Your task to perform on an android device: Go to display settings Image 0: 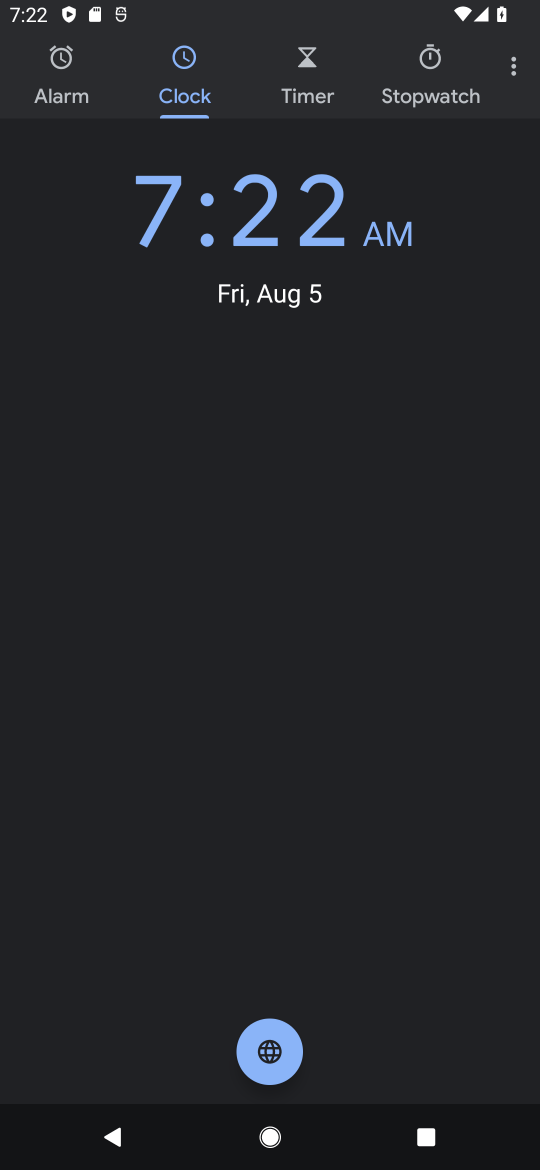
Step 0: press home button
Your task to perform on an android device: Go to display settings Image 1: 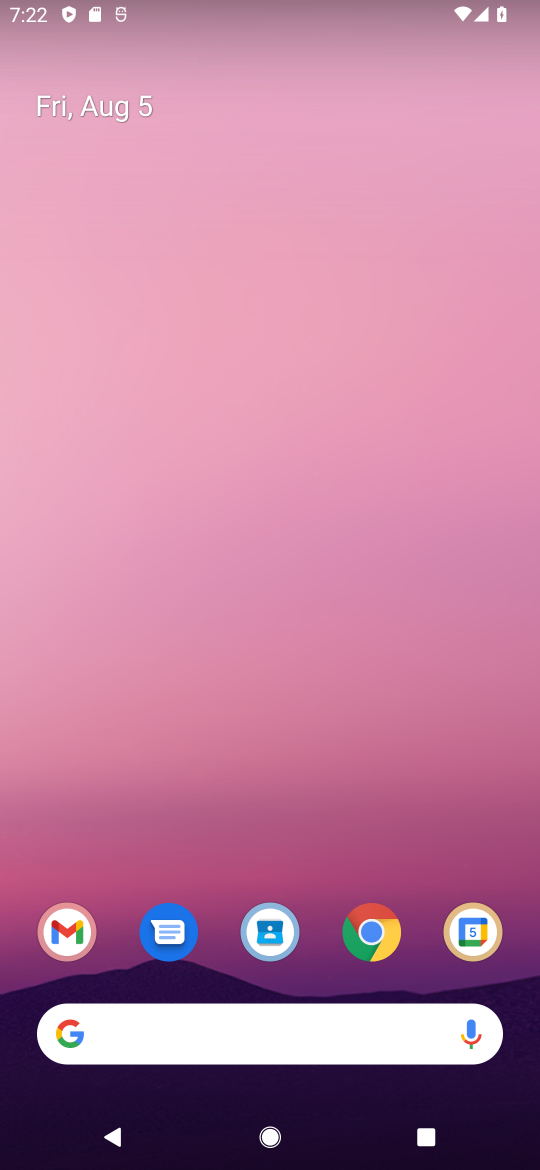
Step 1: drag from (347, 805) to (384, 157)
Your task to perform on an android device: Go to display settings Image 2: 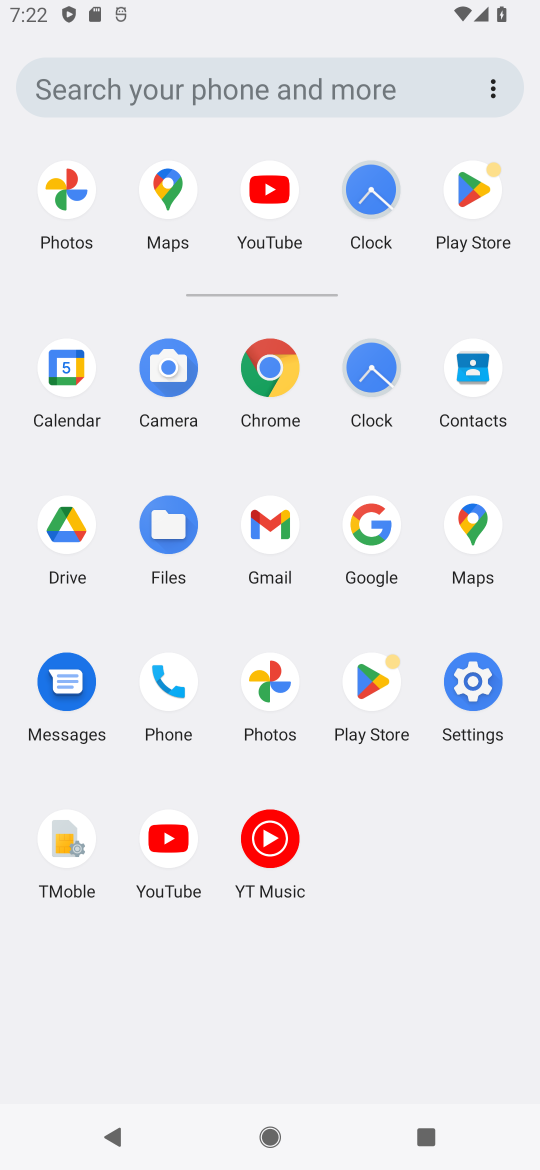
Step 2: click (475, 685)
Your task to perform on an android device: Go to display settings Image 3: 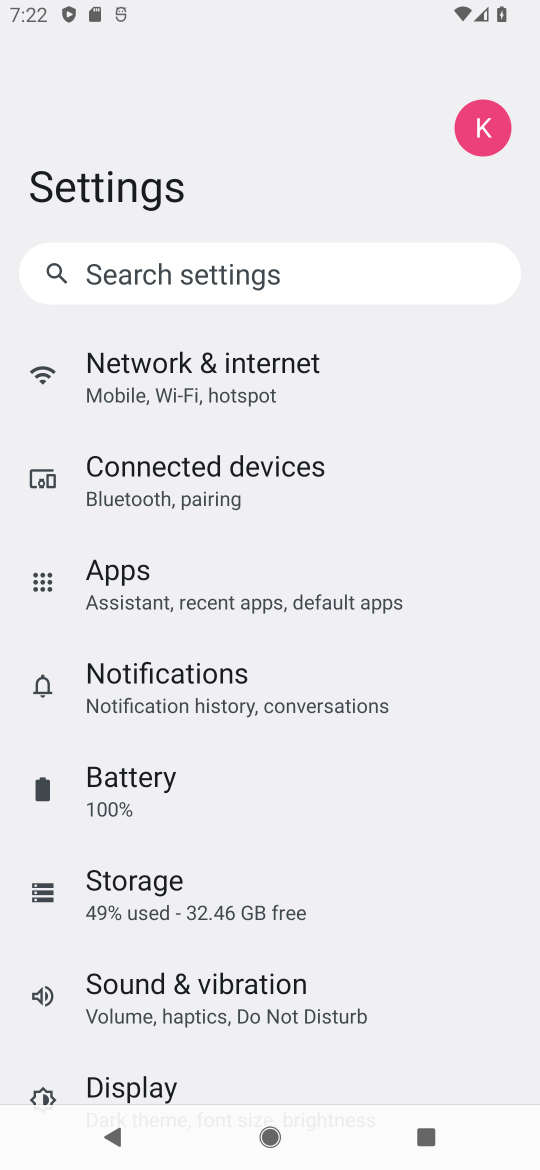
Step 3: drag from (408, 898) to (384, 436)
Your task to perform on an android device: Go to display settings Image 4: 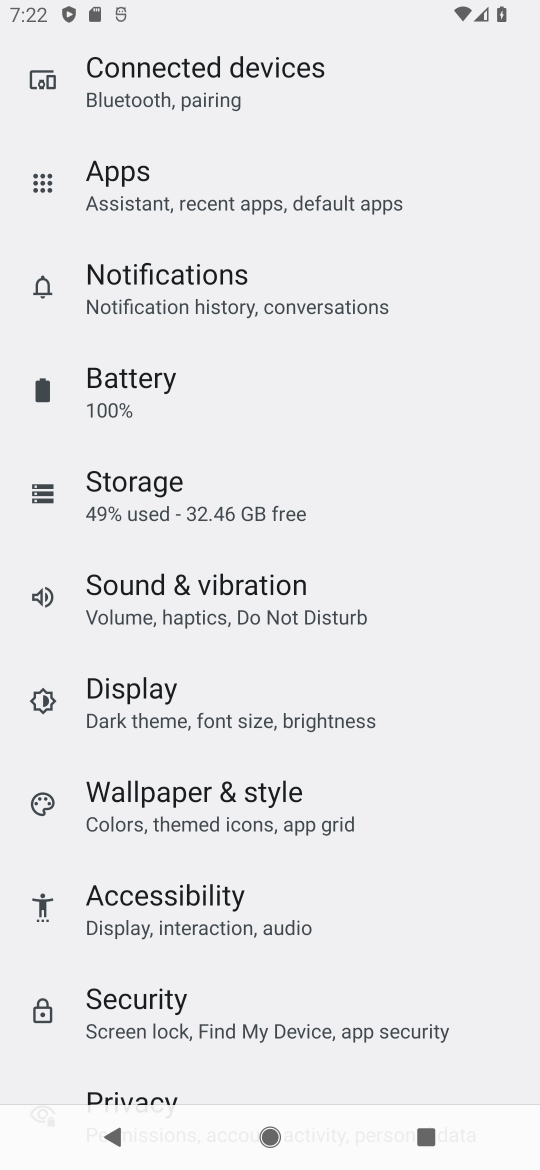
Step 4: click (147, 712)
Your task to perform on an android device: Go to display settings Image 5: 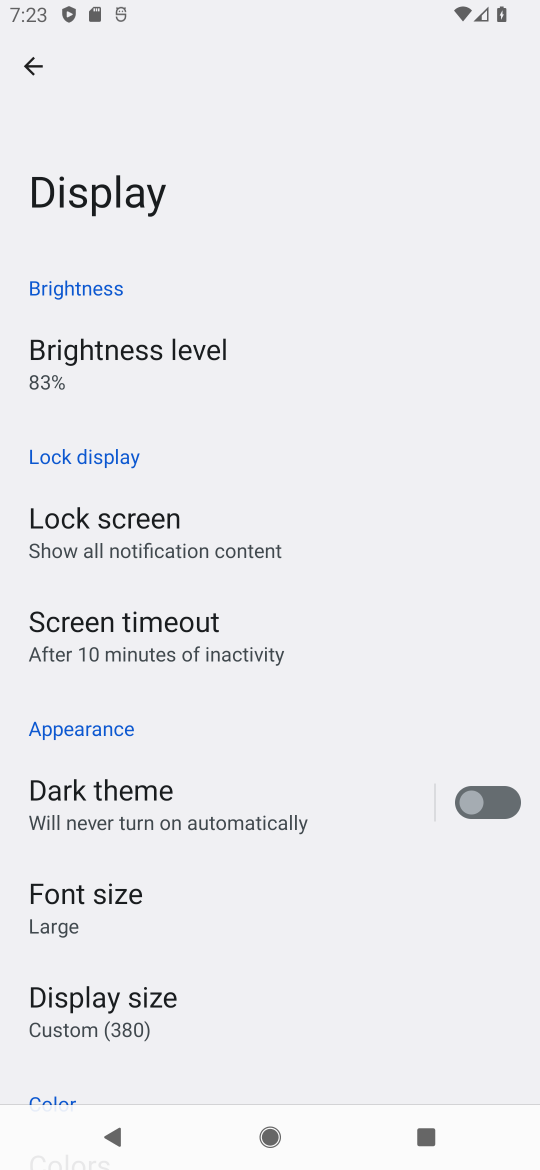
Step 5: task complete